Your task to perform on an android device: turn off picture-in-picture Image 0: 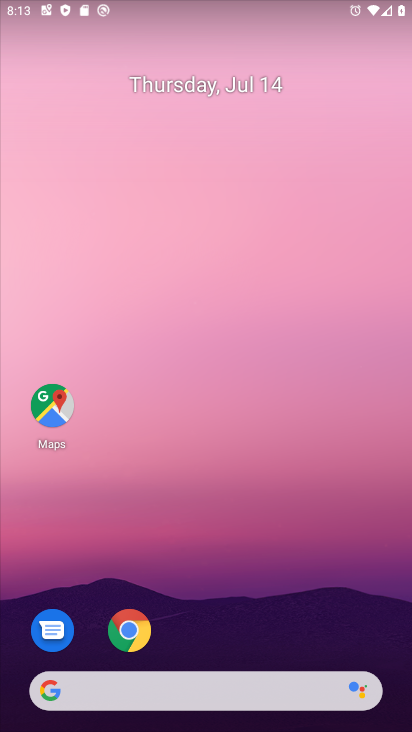
Step 0: drag from (236, 714) to (234, 417)
Your task to perform on an android device: turn off picture-in-picture Image 1: 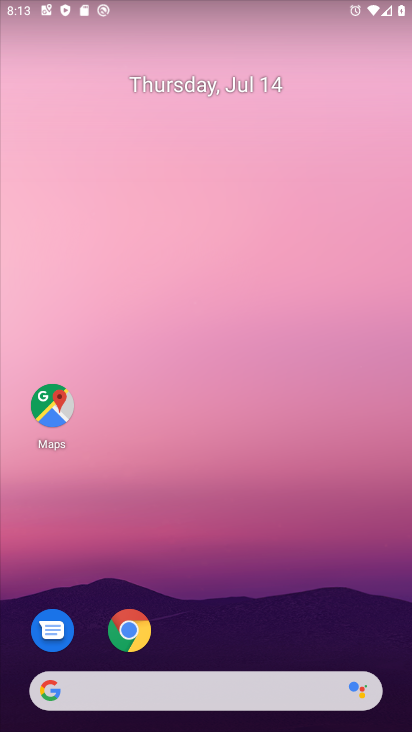
Step 1: drag from (270, 660) to (298, 195)
Your task to perform on an android device: turn off picture-in-picture Image 2: 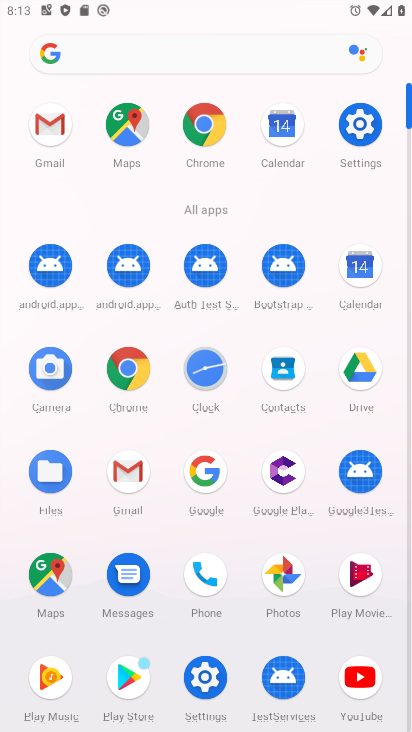
Step 2: click (353, 124)
Your task to perform on an android device: turn off picture-in-picture Image 3: 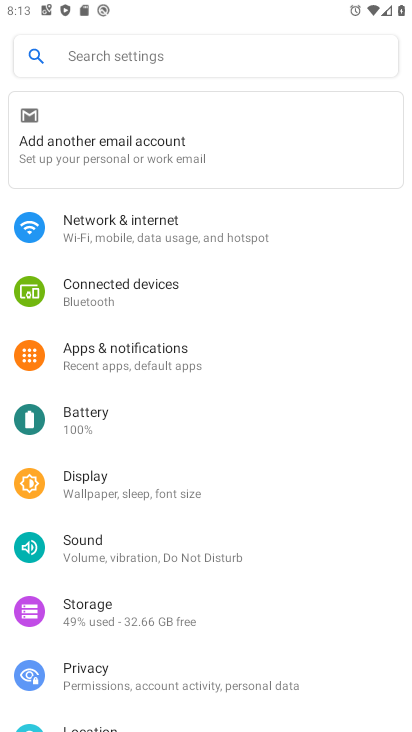
Step 3: click (119, 359)
Your task to perform on an android device: turn off picture-in-picture Image 4: 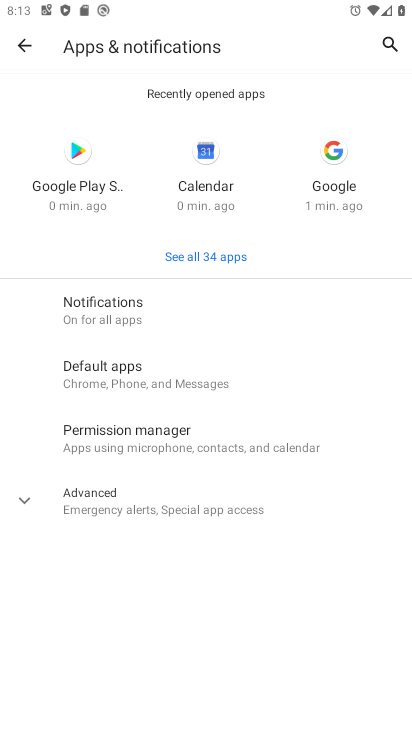
Step 4: click (87, 506)
Your task to perform on an android device: turn off picture-in-picture Image 5: 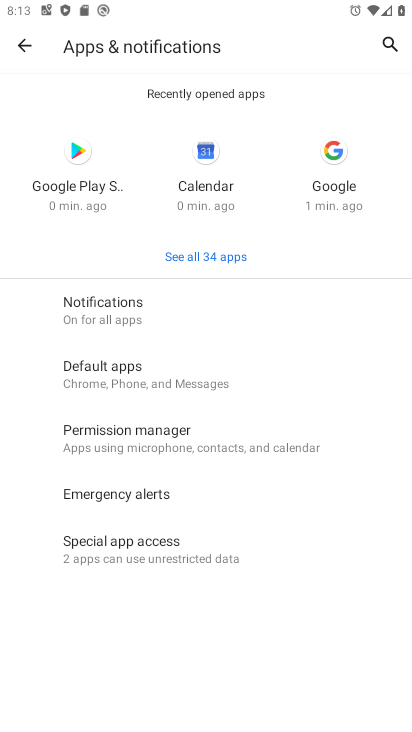
Step 5: click (91, 548)
Your task to perform on an android device: turn off picture-in-picture Image 6: 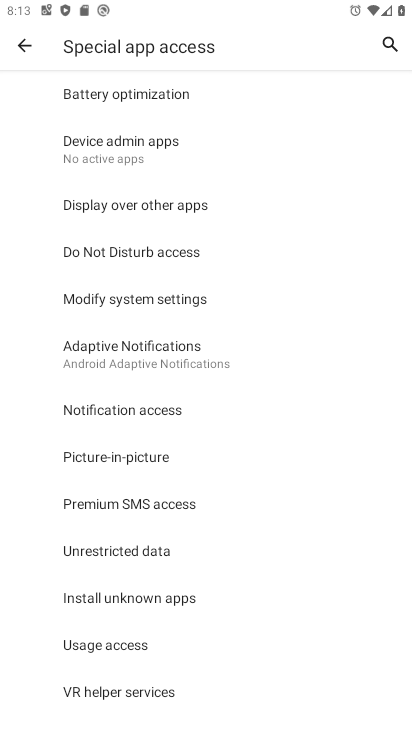
Step 6: click (91, 455)
Your task to perform on an android device: turn off picture-in-picture Image 7: 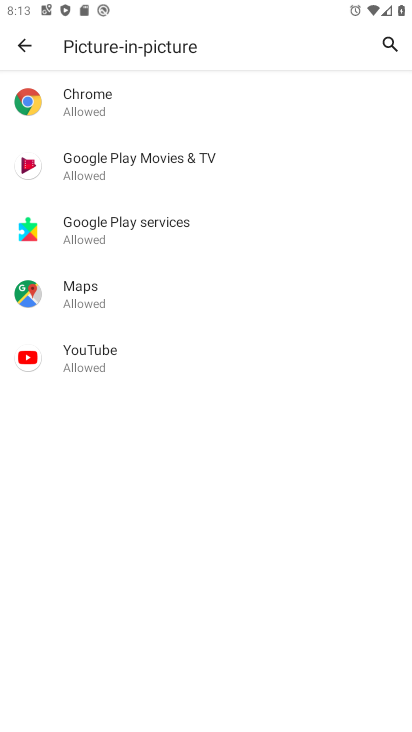
Step 7: click (88, 355)
Your task to perform on an android device: turn off picture-in-picture Image 8: 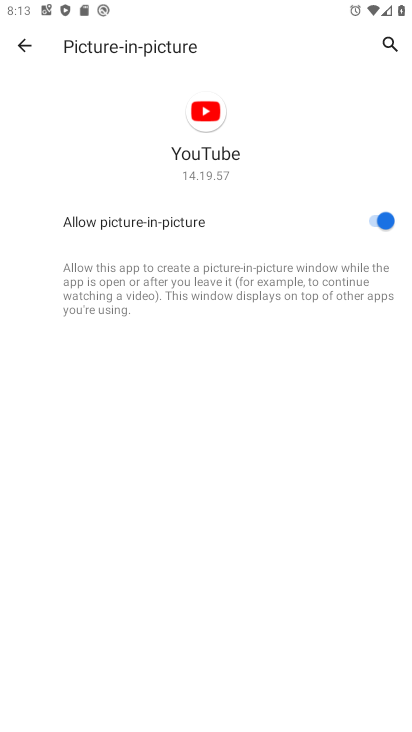
Step 8: click (373, 220)
Your task to perform on an android device: turn off picture-in-picture Image 9: 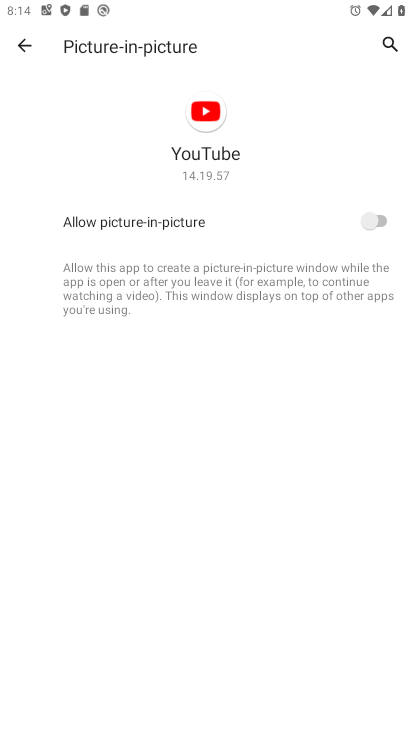
Step 9: task complete